Your task to perform on an android device: open wifi settings Image 0: 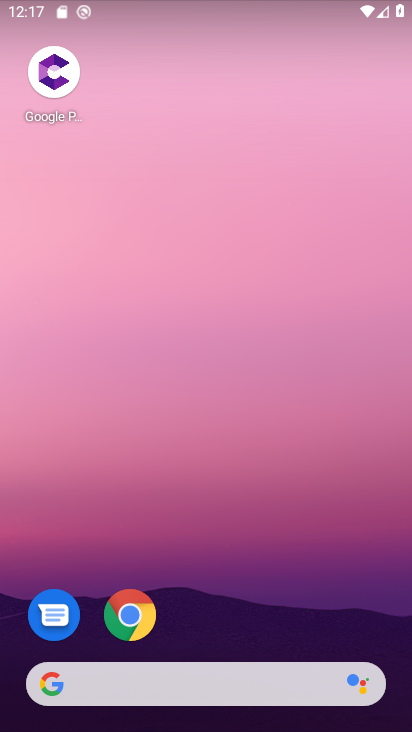
Step 0: drag from (227, 687) to (277, 51)
Your task to perform on an android device: open wifi settings Image 1: 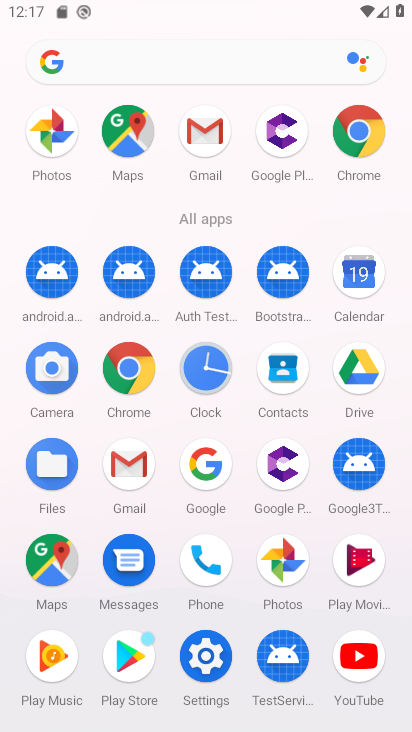
Step 1: click (187, 658)
Your task to perform on an android device: open wifi settings Image 2: 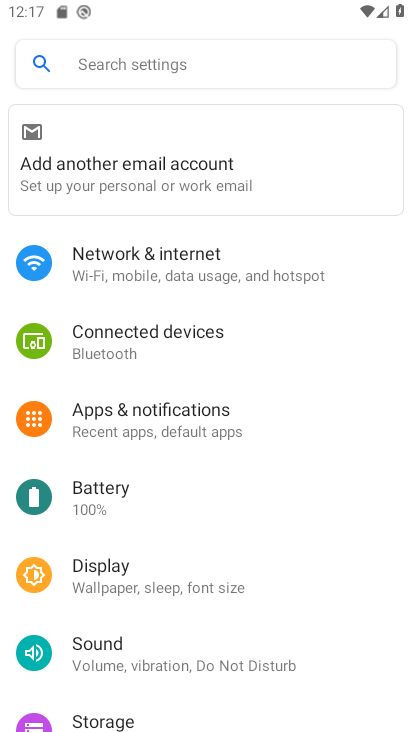
Step 2: click (124, 266)
Your task to perform on an android device: open wifi settings Image 3: 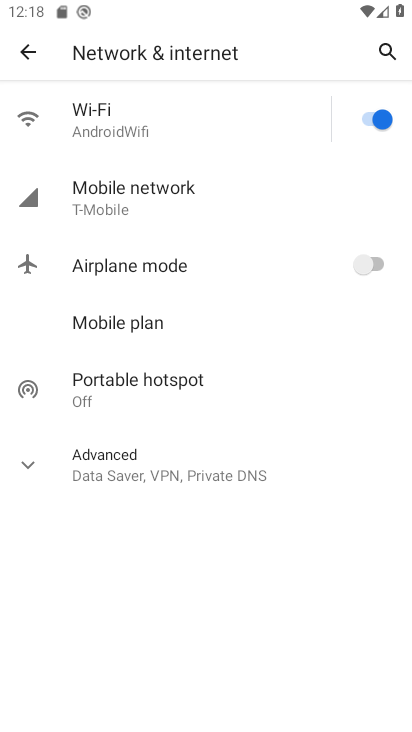
Step 3: click (136, 157)
Your task to perform on an android device: open wifi settings Image 4: 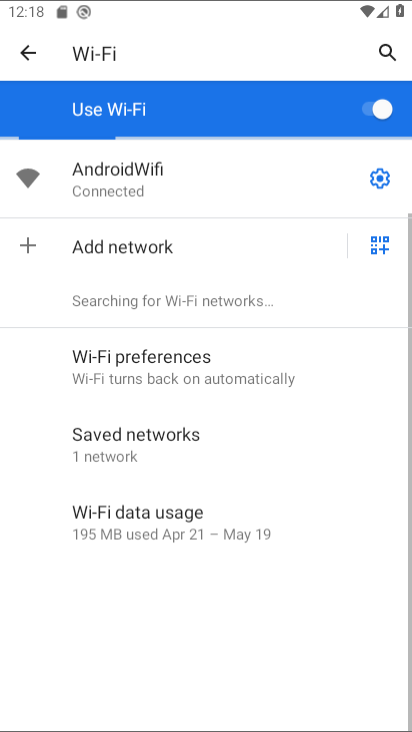
Step 4: task complete